Your task to perform on an android device: Clear the cart on bestbuy.com. Add "jbl flip 4" to the cart on bestbuy.com, then select checkout. Image 0: 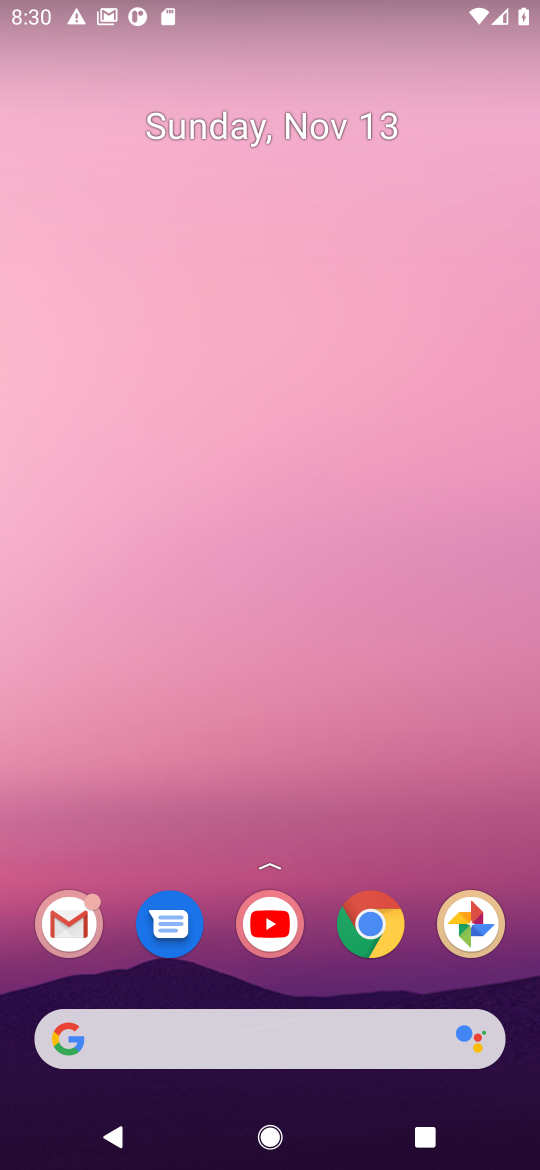
Step 0: click (365, 922)
Your task to perform on an android device: Clear the cart on bestbuy.com. Add "jbl flip 4" to the cart on bestbuy.com, then select checkout. Image 1: 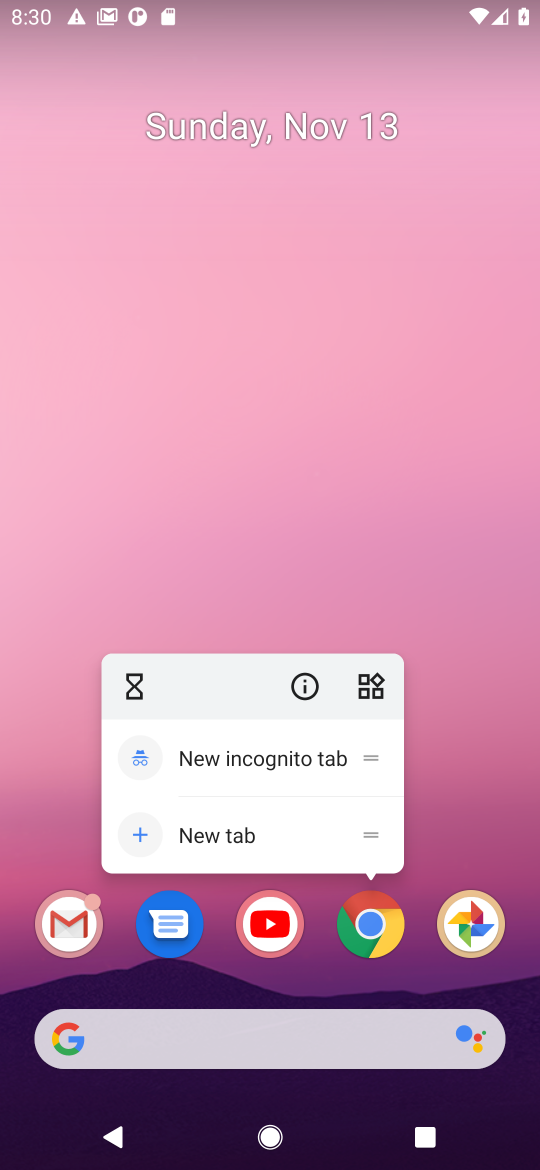
Step 1: click (369, 929)
Your task to perform on an android device: Clear the cart on bestbuy.com. Add "jbl flip 4" to the cart on bestbuy.com, then select checkout. Image 2: 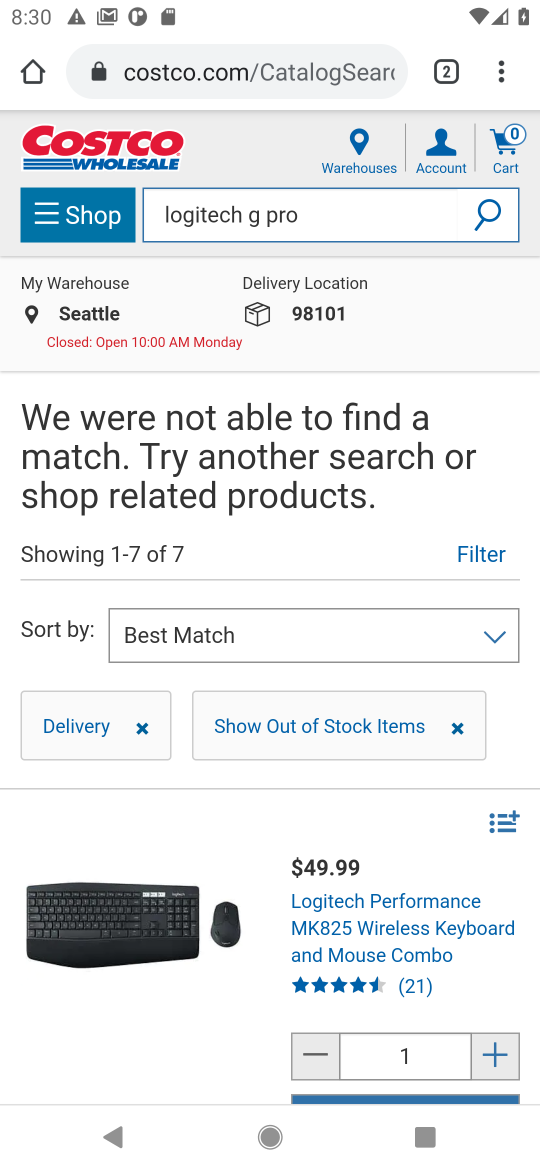
Step 2: click (270, 77)
Your task to perform on an android device: Clear the cart on bestbuy.com. Add "jbl flip 4" to the cart on bestbuy.com, then select checkout. Image 3: 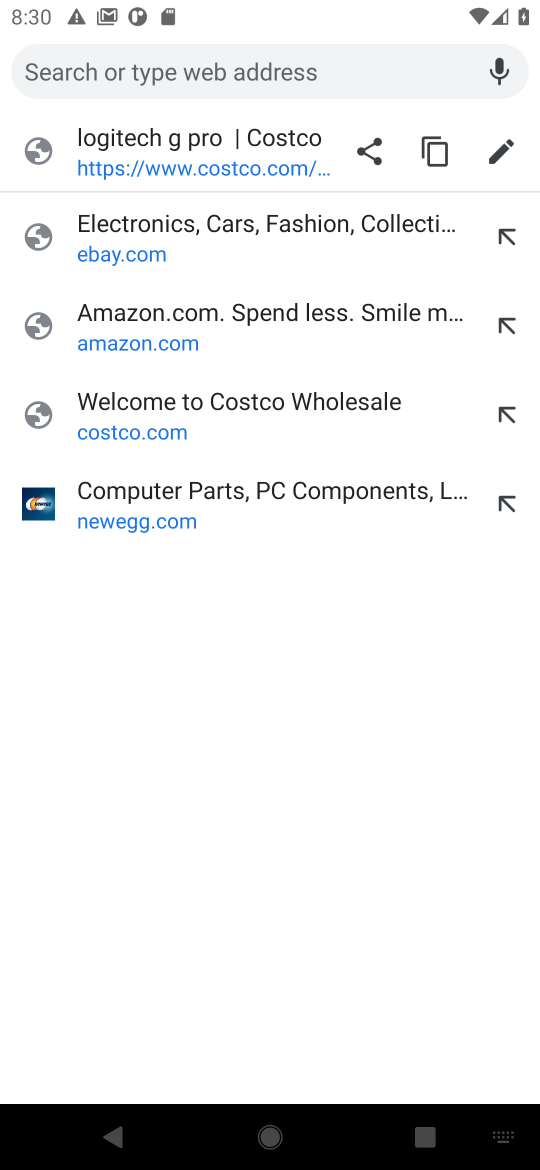
Step 3: type "bestbuy.com"
Your task to perform on an android device: Clear the cart on bestbuy.com. Add "jbl flip 4" to the cart on bestbuy.com, then select checkout. Image 4: 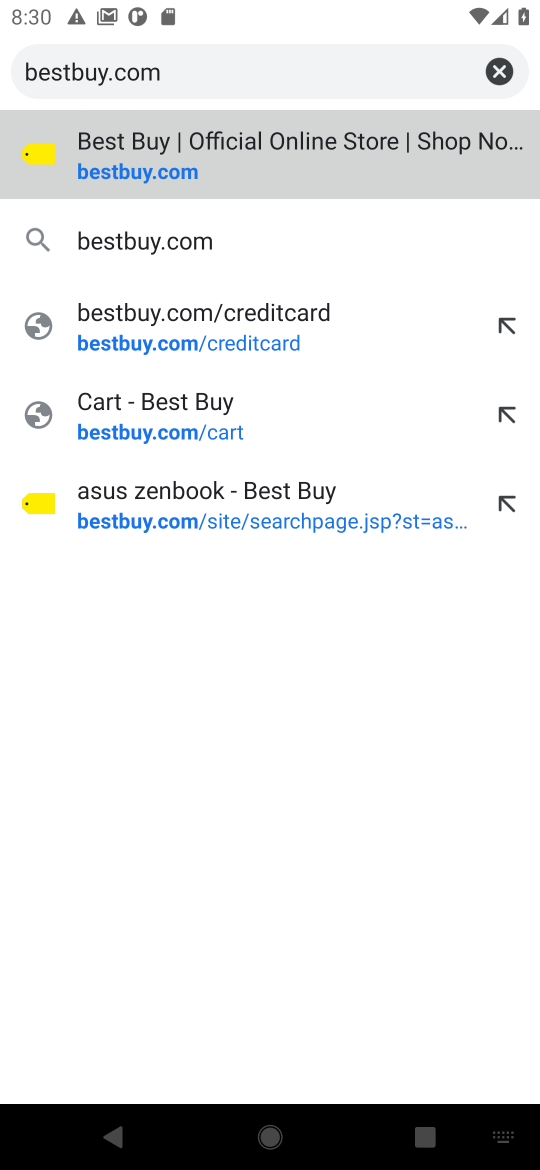
Step 4: click (163, 173)
Your task to perform on an android device: Clear the cart on bestbuy.com. Add "jbl flip 4" to the cart on bestbuy.com, then select checkout. Image 5: 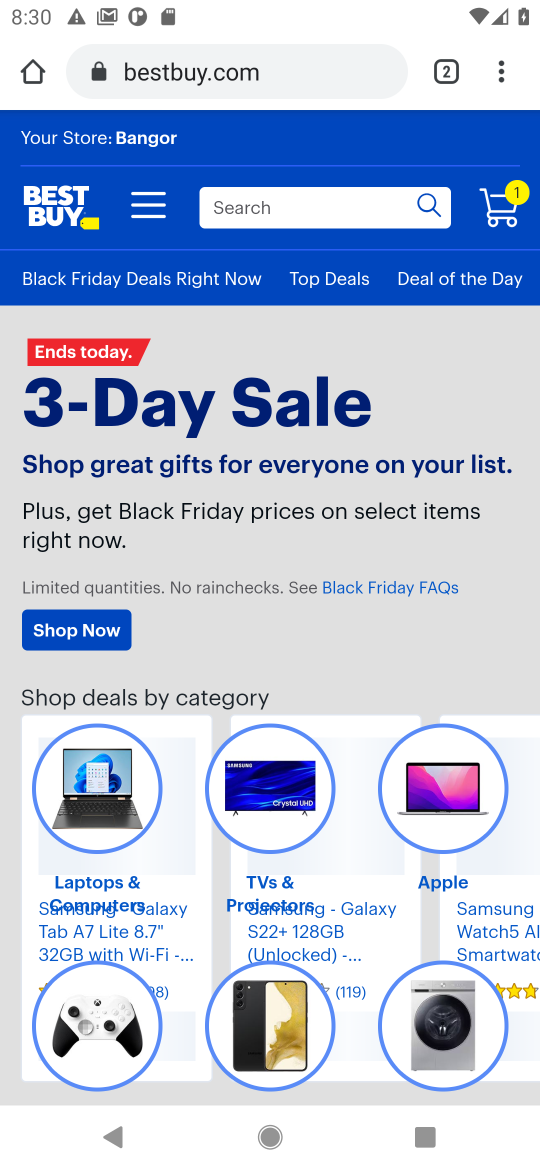
Step 5: click (517, 209)
Your task to perform on an android device: Clear the cart on bestbuy.com. Add "jbl flip 4" to the cart on bestbuy.com, then select checkout. Image 6: 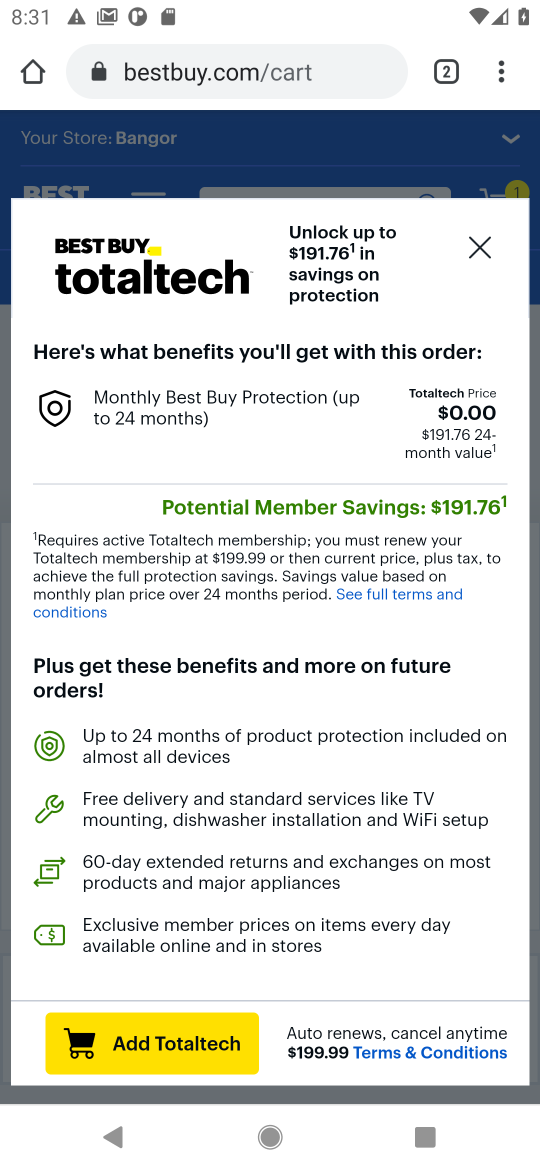
Step 6: click (478, 249)
Your task to perform on an android device: Clear the cart on bestbuy.com. Add "jbl flip 4" to the cart on bestbuy.com, then select checkout. Image 7: 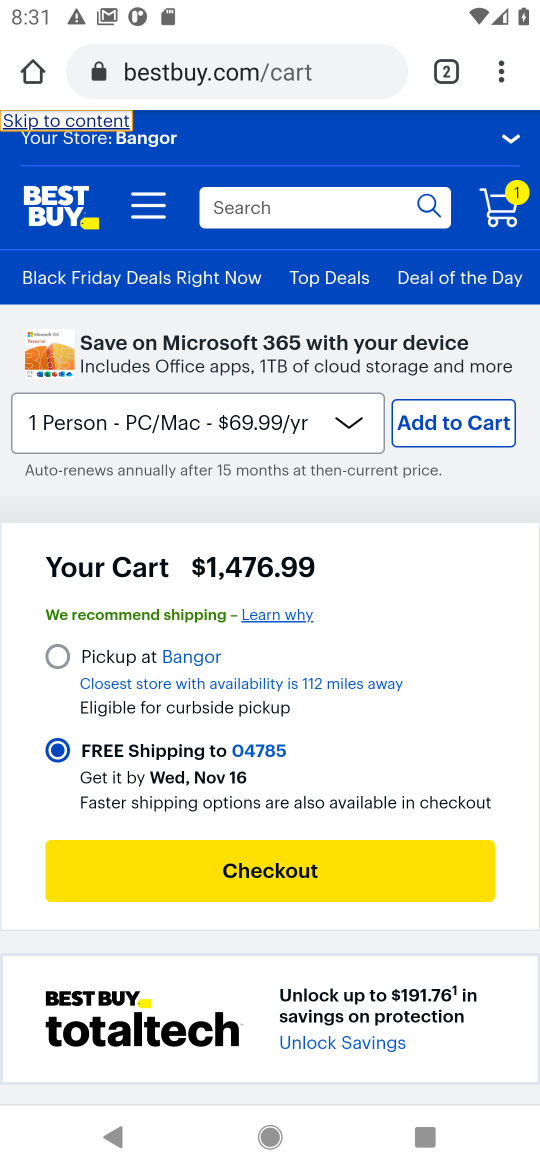
Step 7: drag from (425, 699) to (409, 246)
Your task to perform on an android device: Clear the cart on bestbuy.com. Add "jbl flip 4" to the cart on bestbuy.com, then select checkout. Image 8: 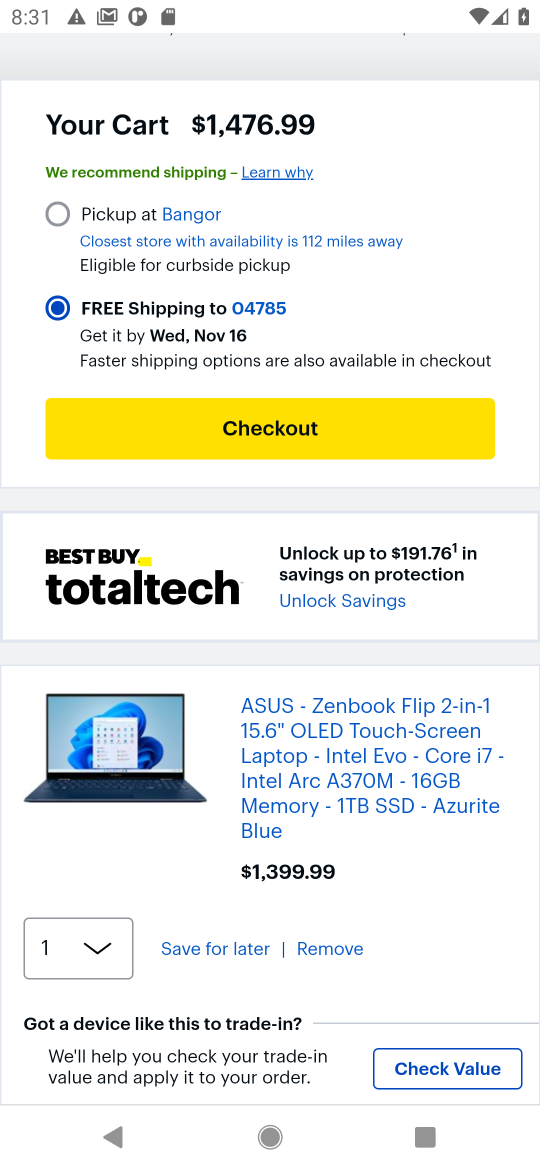
Step 8: click (308, 940)
Your task to perform on an android device: Clear the cart on bestbuy.com. Add "jbl flip 4" to the cart on bestbuy.com, then select checkout. Image 9: 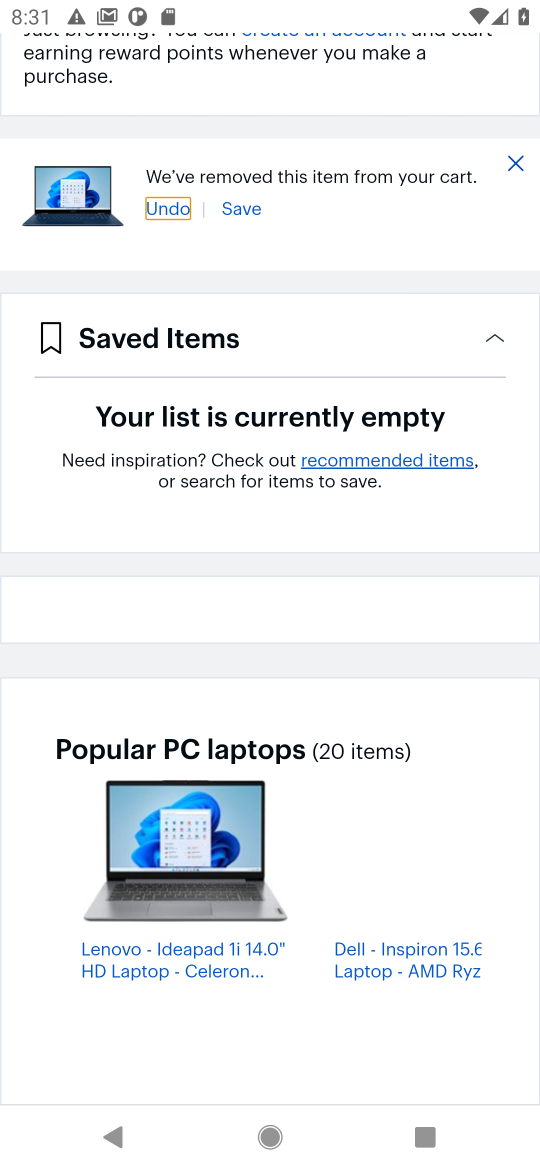
Step 9: drag from (316, 476) to (325, 886)
Your task to perform on an android device: Clear the cart on bestbuy.com. Add "jbl flip 4" to the cart on bestbuy.com, then select checkout. Image 10: 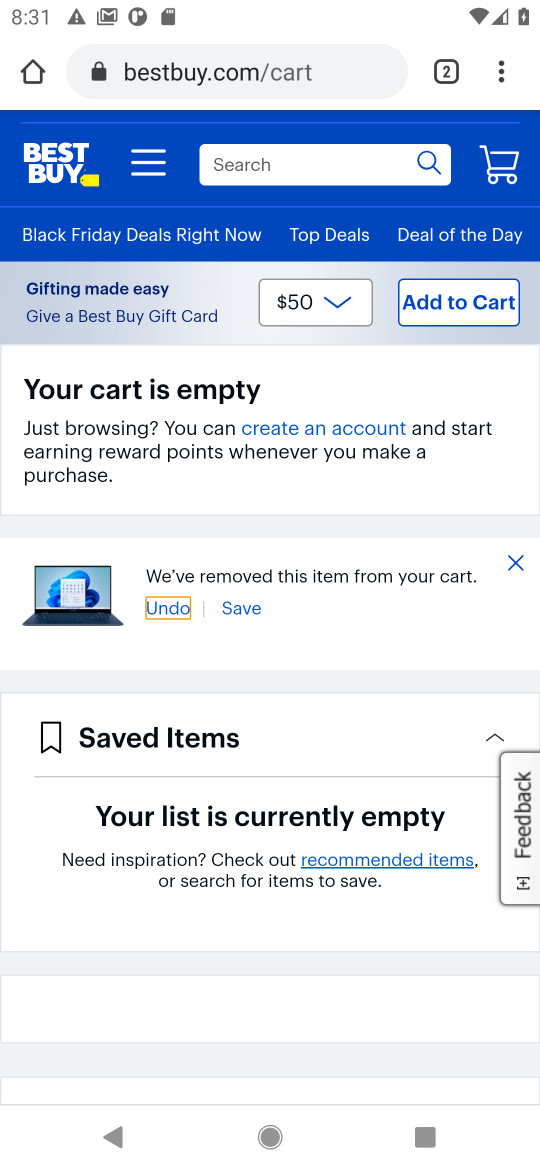
Step 10: click (186, 424)
Your task to perform on an android device: Clear the cart on bestbuy.com. Add "jbl flip 4" to the cart on bestbuy.com, then select checkout. Image 11: 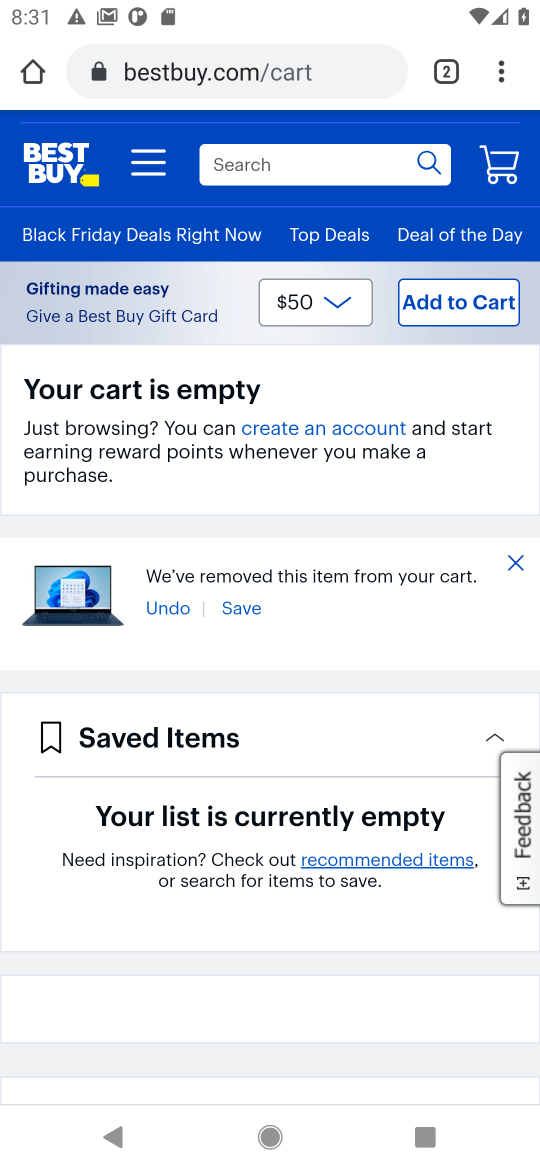
Step 11: click (213, 178)
Your task to perform on an android device: Clear the cart on bestbuy.com. Add "jbl flip 4" to the cart on bestbuy.com, then select checkout. Image 12: 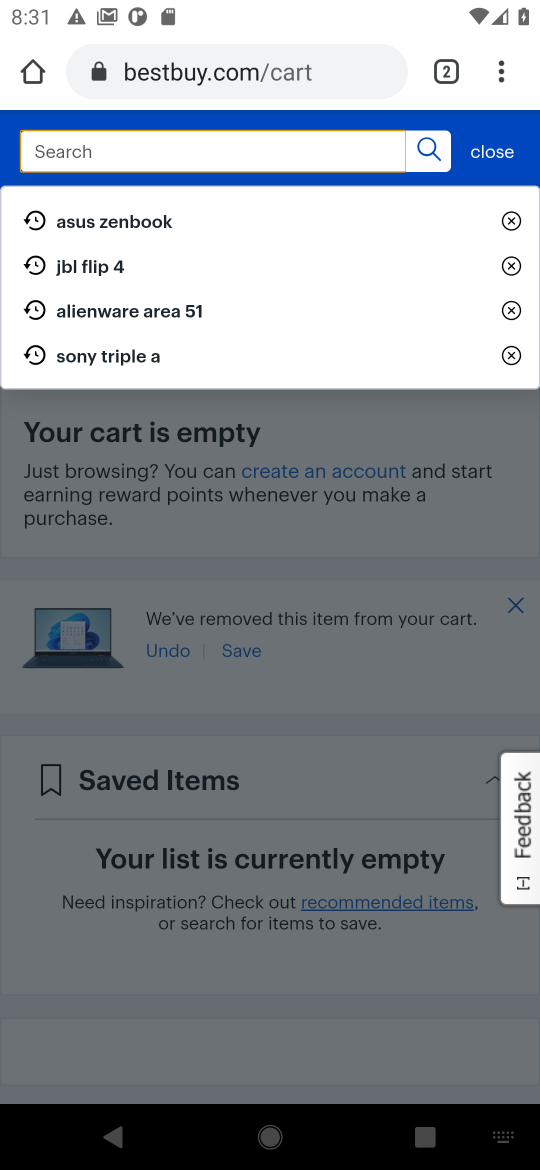
Step 12: type "jbl flip 4"
Your task to perform on an android device: Clear the cart on bestbuy.com. Add "jbl flip 4" to the cart on bestbuy.com, then select checkout. Image 13: 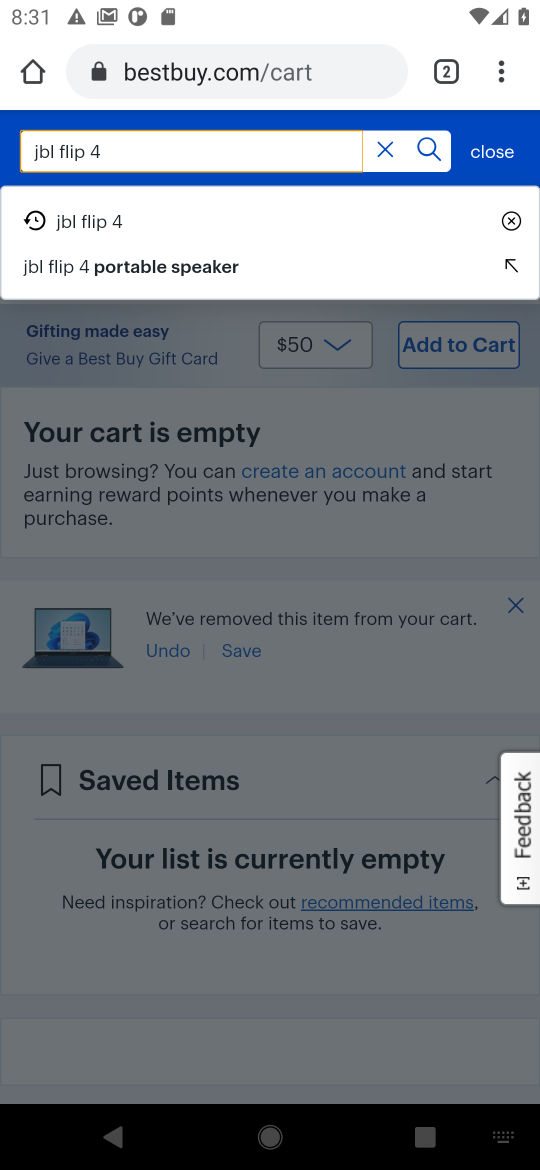
Step 13: click (57, 235)
Your task to perform on an android device: Clear the cart on bestbuy.com. Add "jbl flip 4" to the cart on bestbuy.com, then select checkout. Image 14: 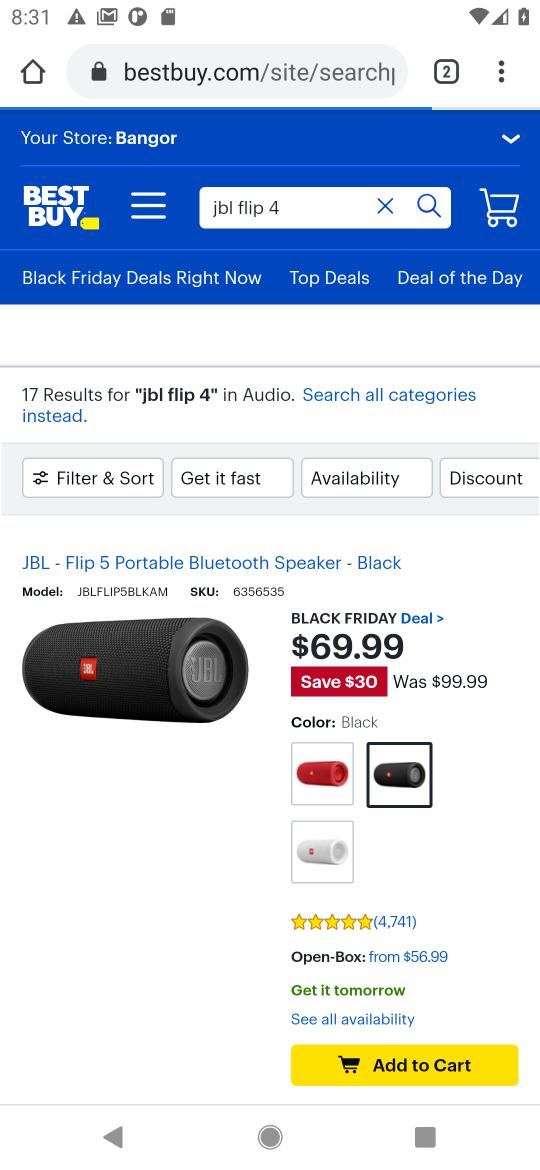
Step 14: task complete